Your task to perform on an android device: Search for vegetarian restaurants on Maps Image 0: 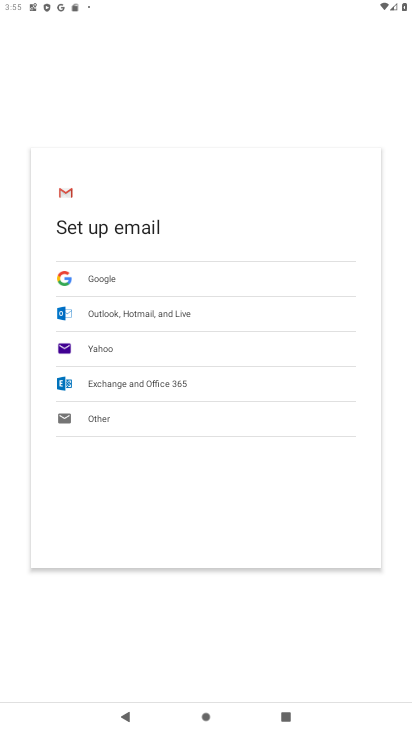
Step 0: press home button
Your task to perform on an android device: Search for vegetarian restaurants on Maps Image 1: 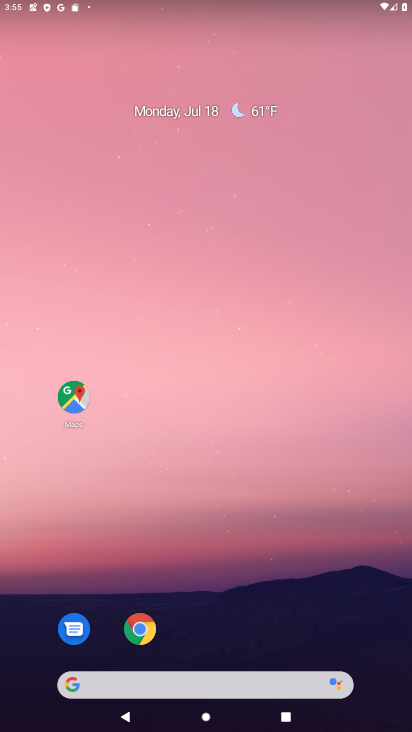
Step 1: click (76, 390)
Your task to perform on an android device: Search for vegetarian restaurants on Maps Image 2: 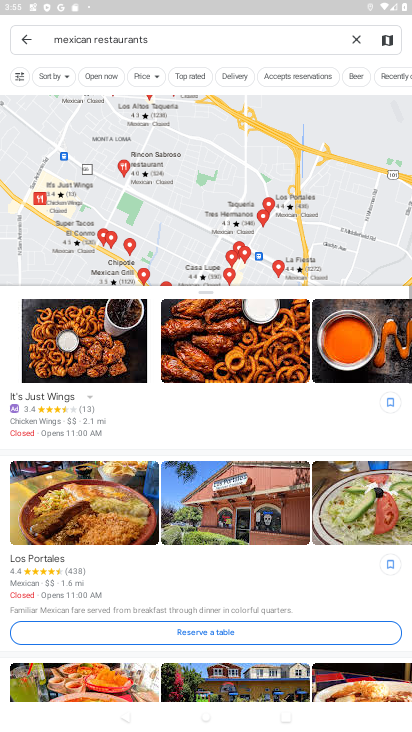
Step 2: click (173, 34)
Your task to perform on an android device: Search for vegetarian restaurants on Maps Image 3: 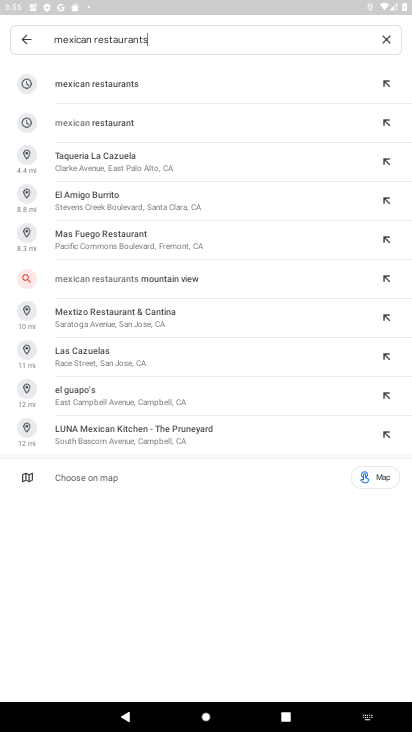
Step 3: click (386, 40)
Your task to perform on an android device: Search for vegetarian restaurants on Maps Image 4: 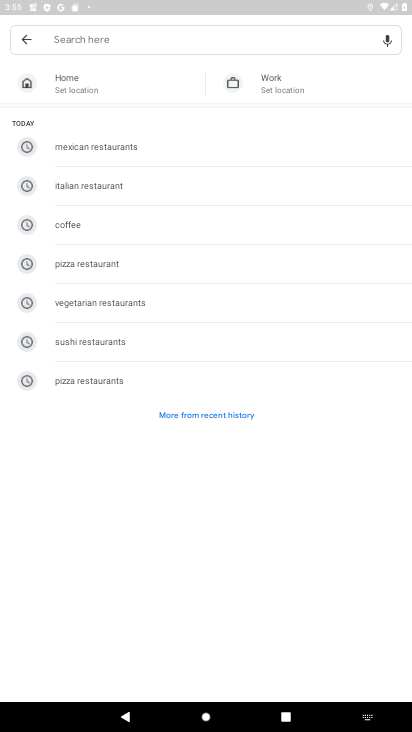
Step 4: click (95, 298)
Your task to perform on an android device: Search for vegetarian restaurants on Maps Image 5: 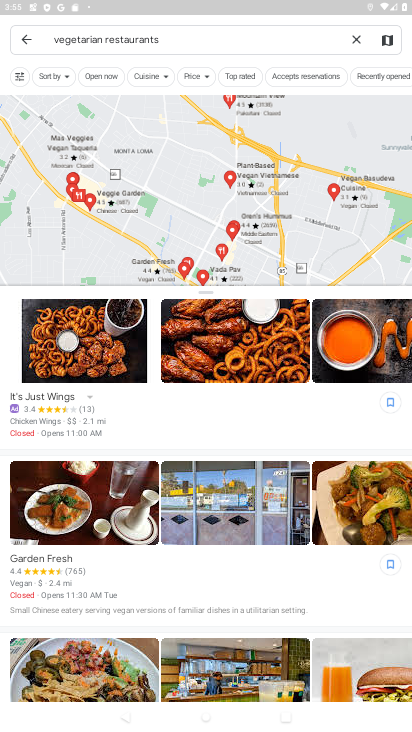
Step 5: task complete